Your task to perform on an android device: create a new album in the google photos Image 0: 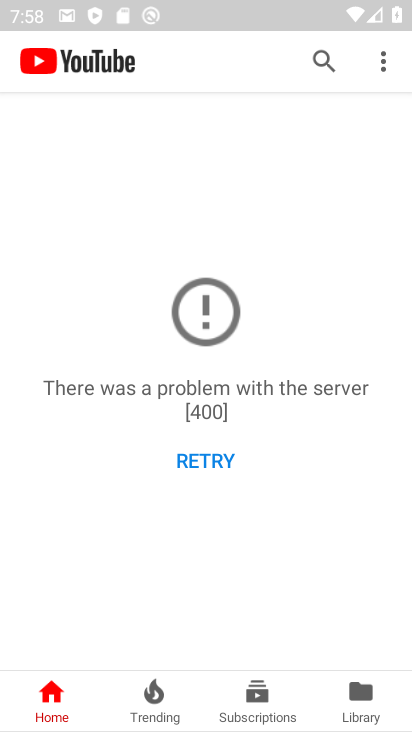
Step 0: press home button
Your task to perform on an android device: create a new album in the google photos Image 1: 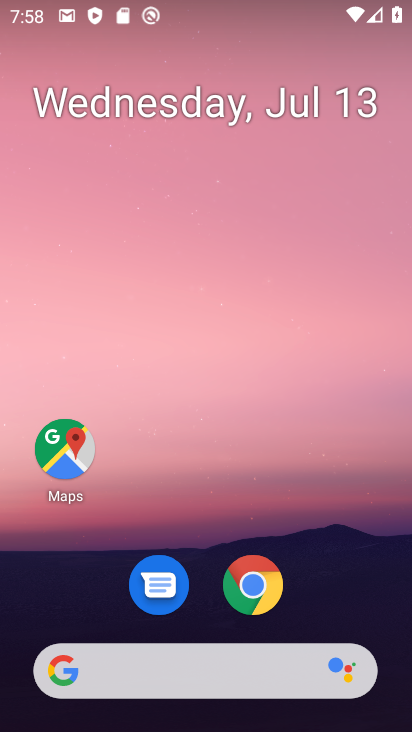
Step 1: drag from (330, 557) to (357, 29)
Your task to perform on an android device: create a new album in the google photos Image 2: 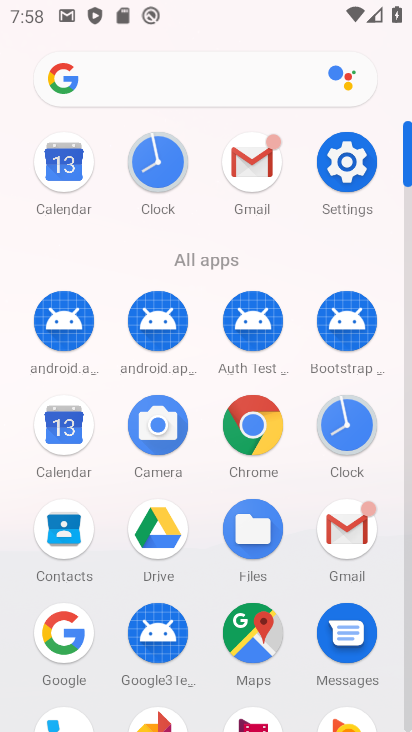
Step 2: drag from (301, 547) to (301, 242)
Your task to perform on an android device: create a new album in the google photos Image 3: 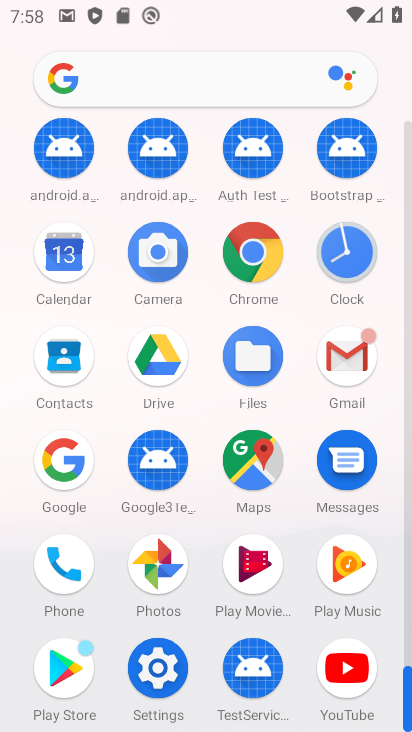
Step 3: click (162, 563)
Your task to perform on an android device: create a new album in the google photos Image 4: 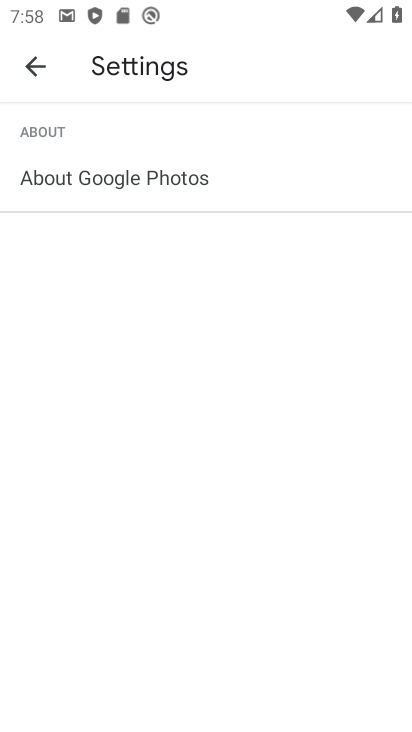
Step 4: click (37, 65)
Your task to perform on an android device: create a new album in the google photos Image 5: 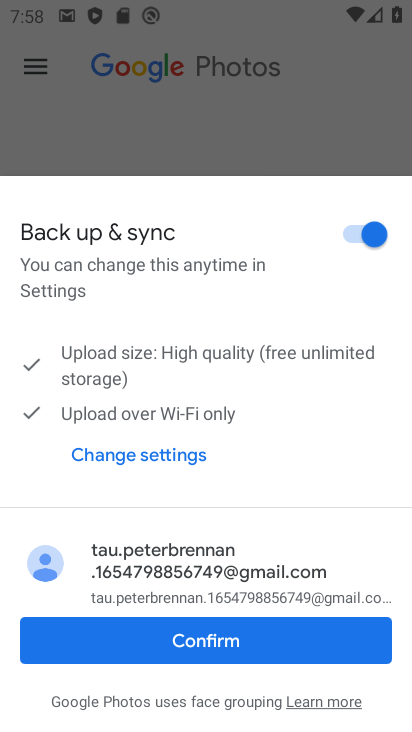
Step 5: click (263, 648)
Your task to perform on an android device: create a new album in the google photos Image 6: 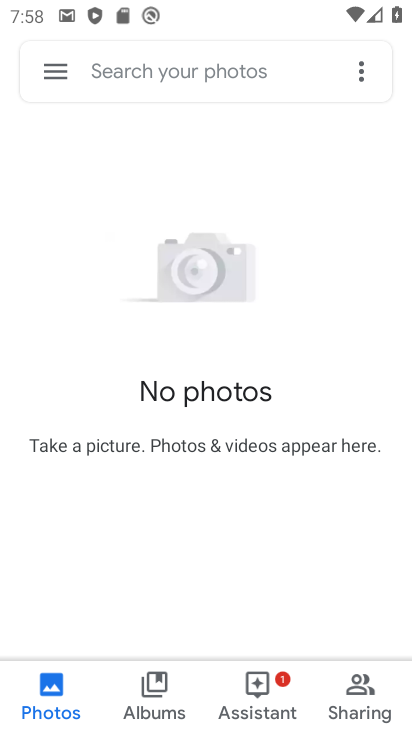
Step 6: click (154, 704)
Your task to perform on an android device: create a new album in the google photos Image 7: 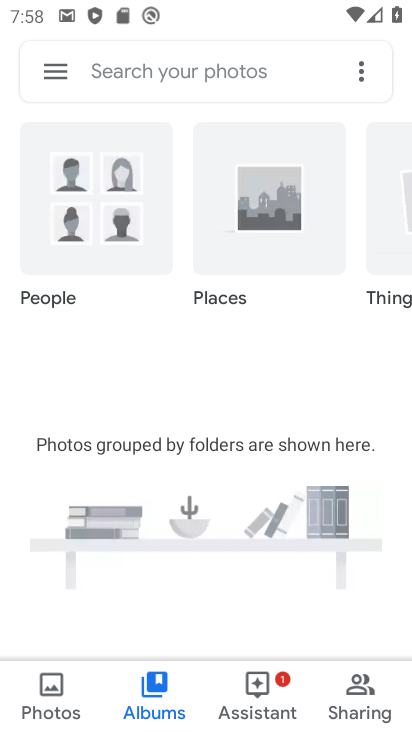
Step 7: click (359, 68)
Your task to perform on an android device: create a new album in the google photos Image 8: 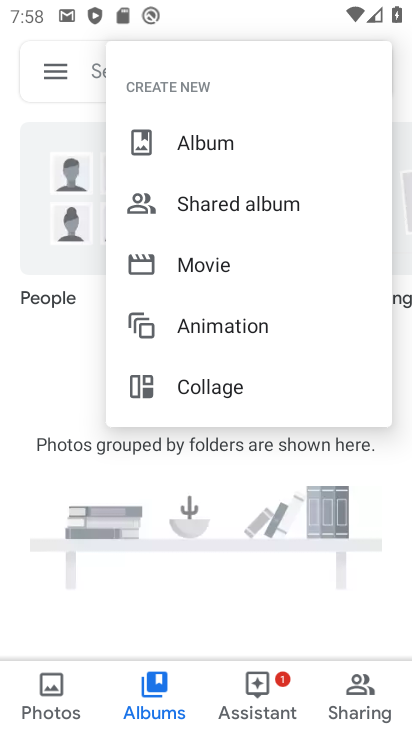
Step 8: click (243, 144)
Your task to perform on an android device: create a new album in the google photos Image 9: 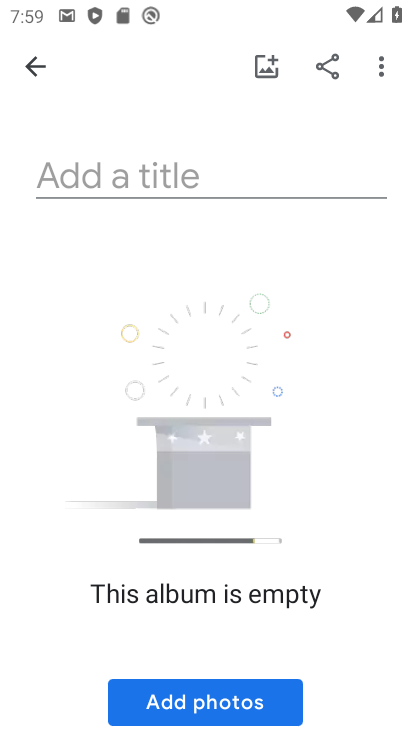
Step 9: click (225, 175)
Your task to perform on an android device: create a new album in the google photos Image 10: 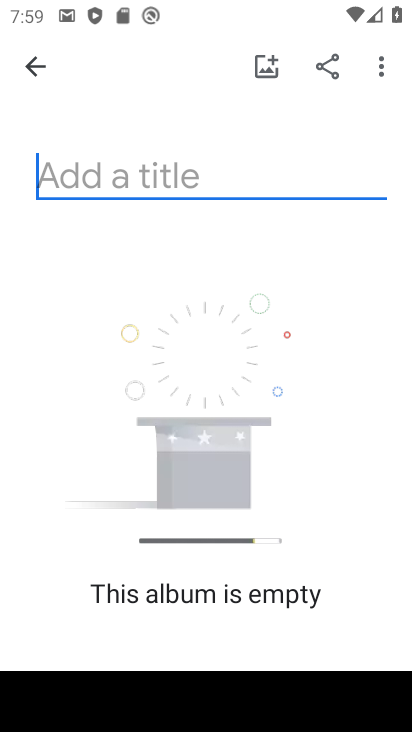
Step 10: type "Rishi Atri"
Your task to perform on an android device: create a new album in the google photos Image 11: 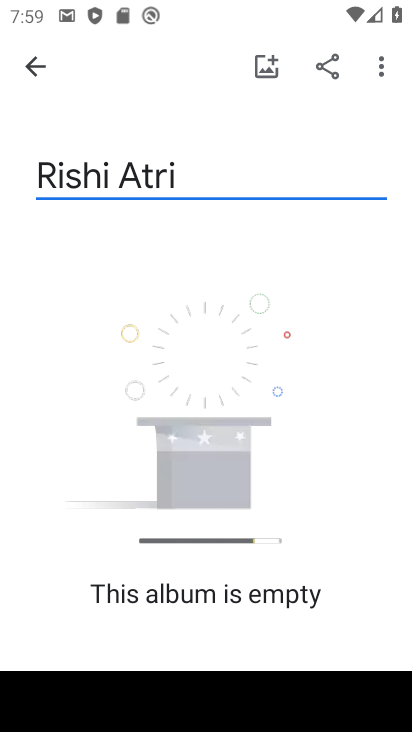
Step 11: drag from (251, 487) to (302, 154)
Your task to perform on an android device: create a new album in the google photos Image 12: 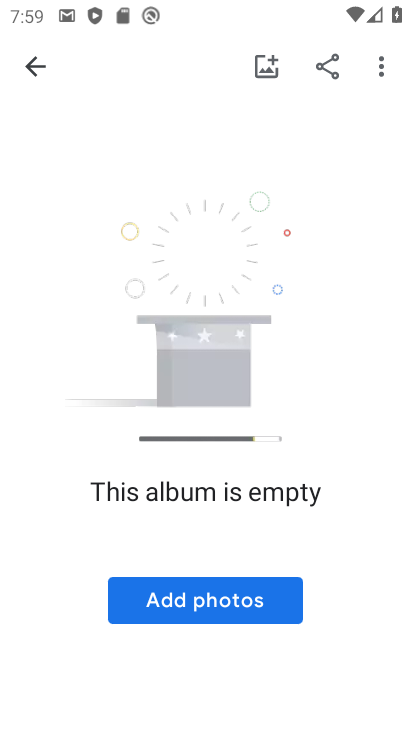
Step 12: click (254, 600)
Your task to perform on an android device: create a new album in the google photos Image 13: 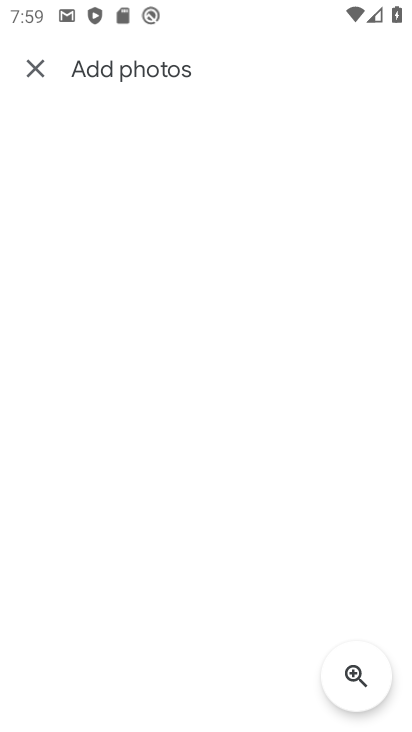
Step 13: click (40, 70)
Your task to perform on an android device: create a new album in the google photos Image 14: 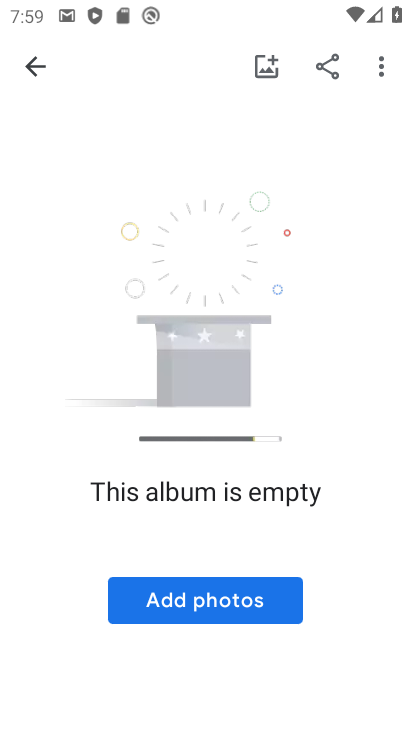
Step 14: drag from (264, 292) to (288, 664)
Your task to perform on an android device: create a new album in the google photos Image 15: 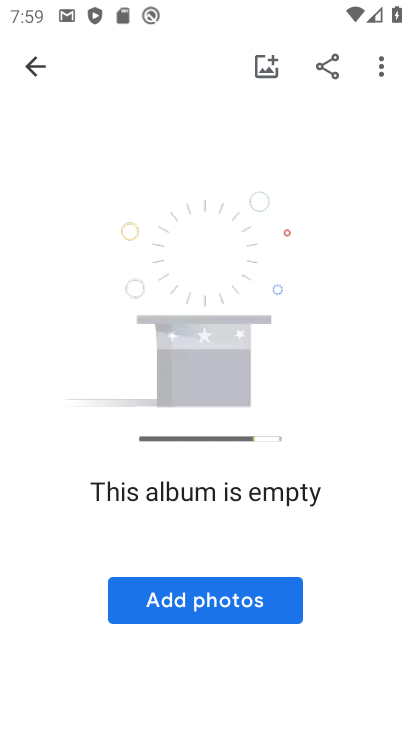
Step 15: drag from (158, 236) to (206, 576)
Your task to perform on an android device: create a new album in the google photos Image 16: 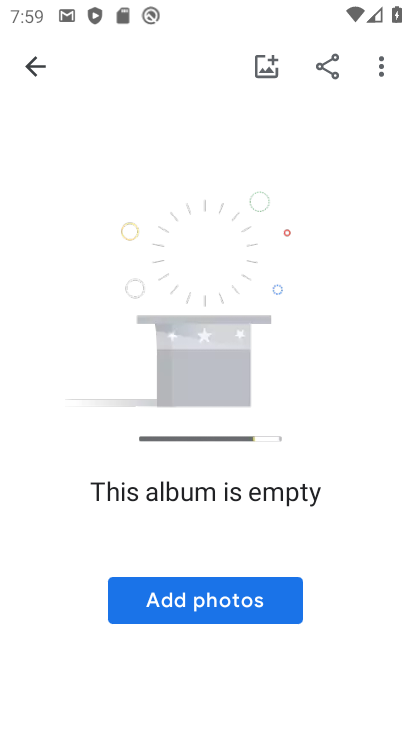
Step 16: click (30, 58)
Your task to perform on an android device: create a new album in the google photos Image 17: 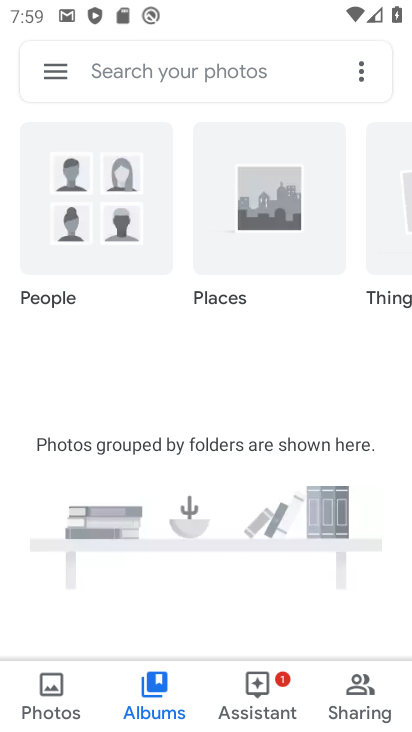
Step 17: task complete